Your task to perform on an android device: Search for Mexican restaurants on Maps Image 0: 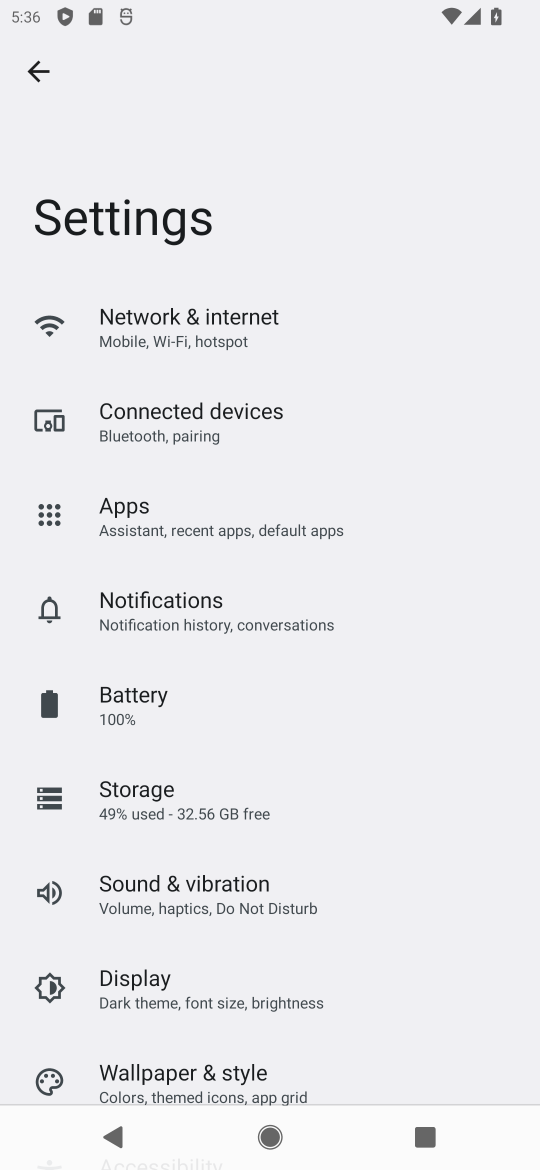
Step 0: press home button
Your task to perform on an android device: Search for Mexican restaurants on Maps Image 1: 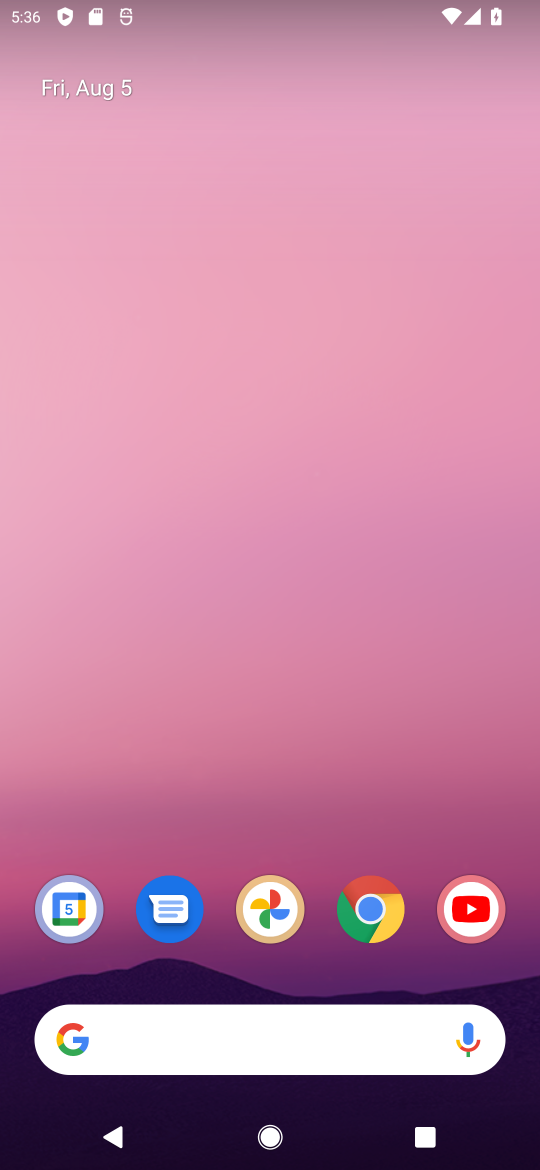
Step 1: drag from (253, 789) to (193, 73)
Your task to perform on an android device: Search for Mexican restaurants on Maps Image 2: 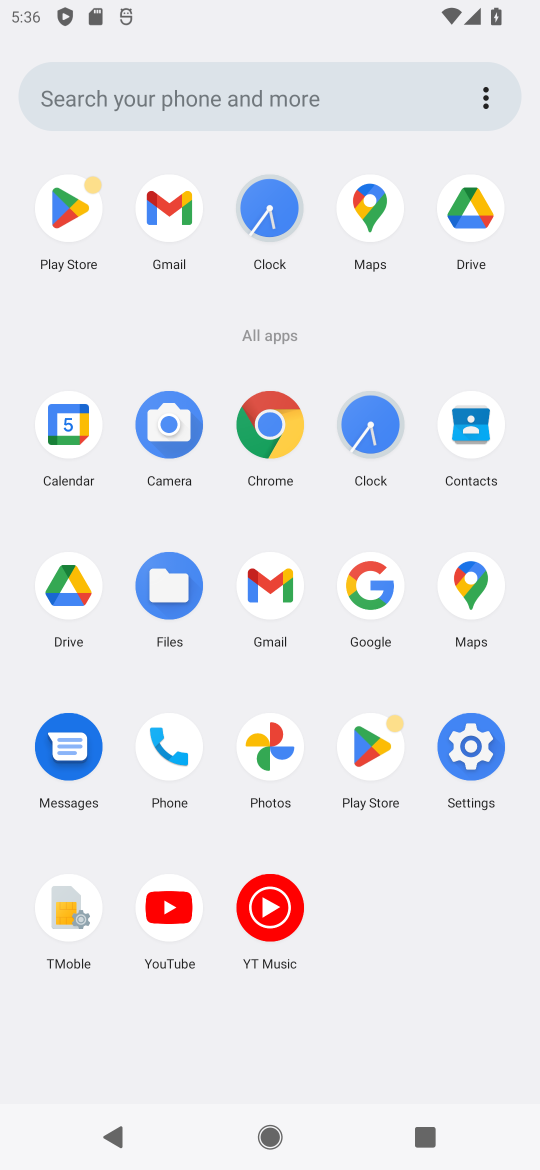
Step 2: click (465, 578)
Your task to perform on an android device: Search for Mexican restaurants on Maps Image 3: 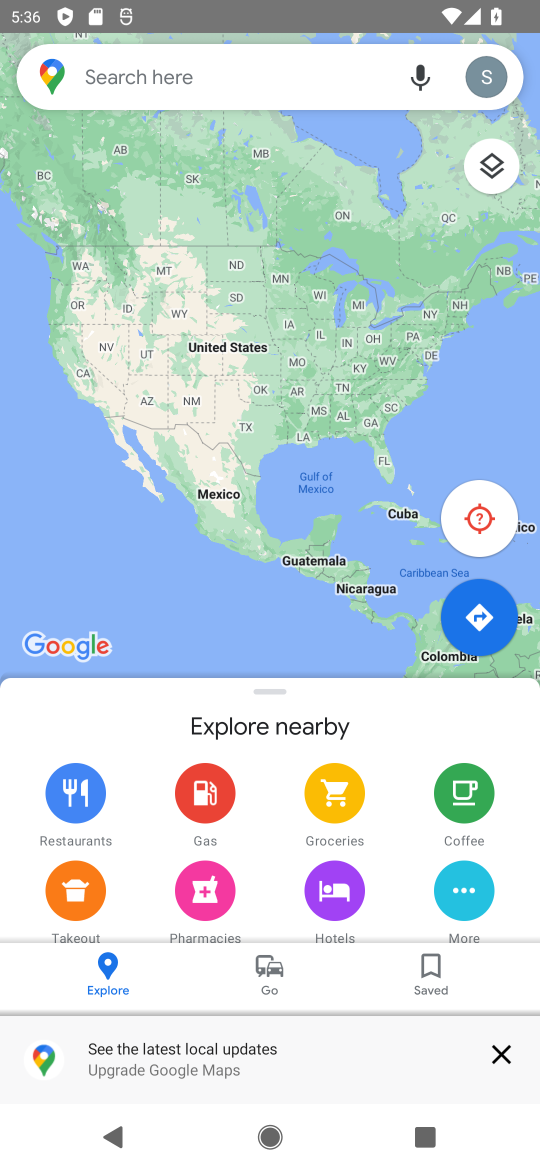
Step 3: click (116, 80)
Your task to perform on an android device: Search for Mexican restaurants on Maps Image 4: 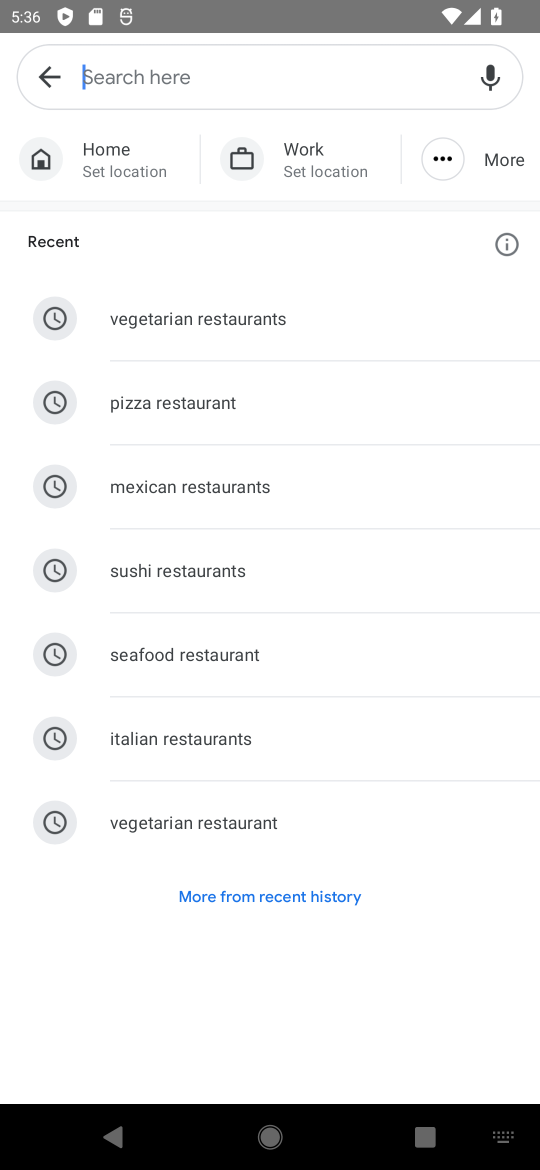
Step 4: type "Mexican restaurants"
Your task to perform on an android device: Search for Mexican restaurants on Maps Image 5: 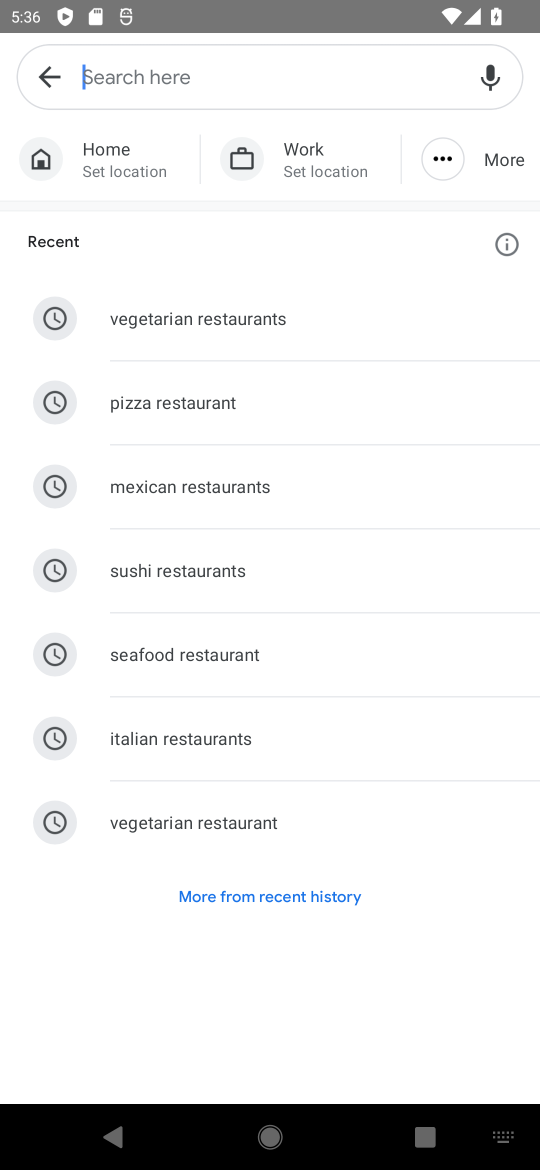
Step 5: click (177, 487)
Your task to perform on an android device: Search for Mexican restaurants on Maps Image 6: 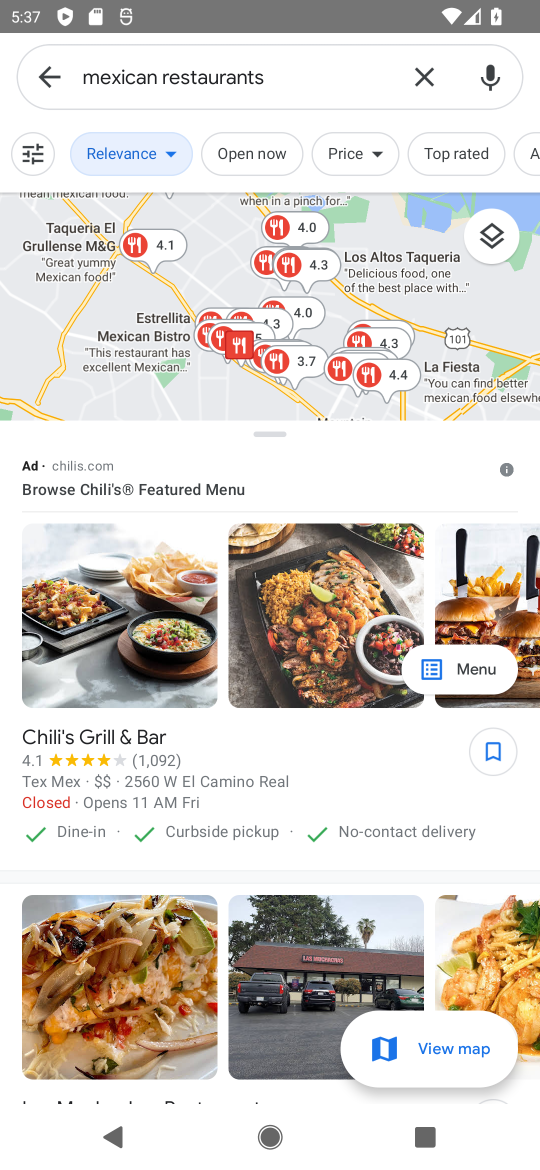
Step 6: task complete